Your task to perform on an android device: check storage Image 0: 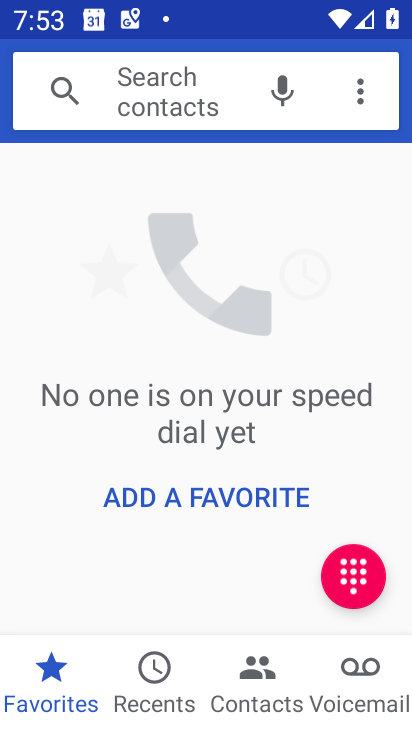
Step 0: press home button
Your task to perform on an android device: check storage Image 1: 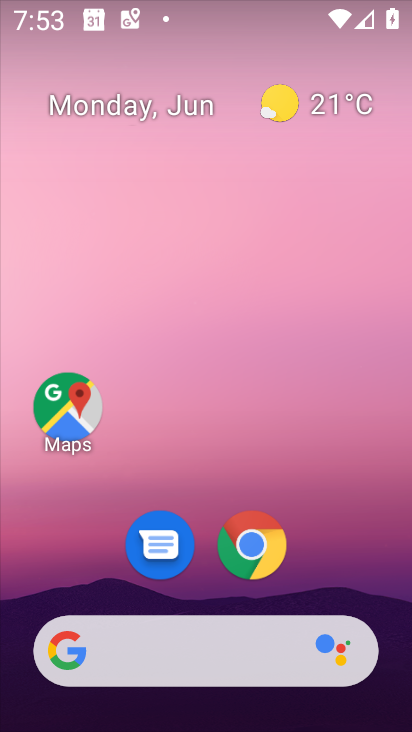
Step 1: drag from (325, 539) to (309, 98)
Your task to perform on an android device: check storage Image 2: 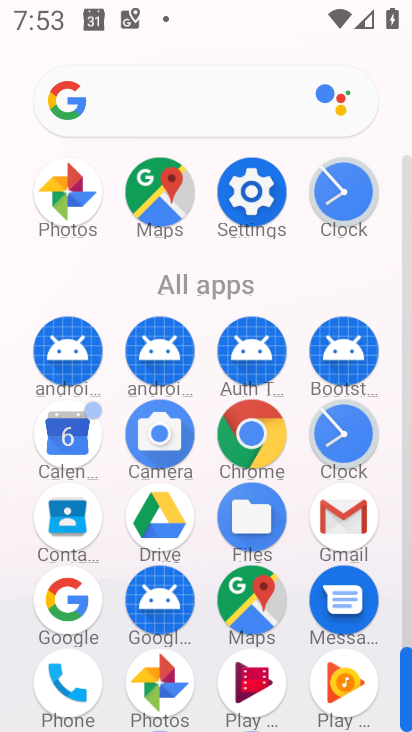
Step 2: click (257, 209)
Your task to perform on an android device: check storage Image 3: 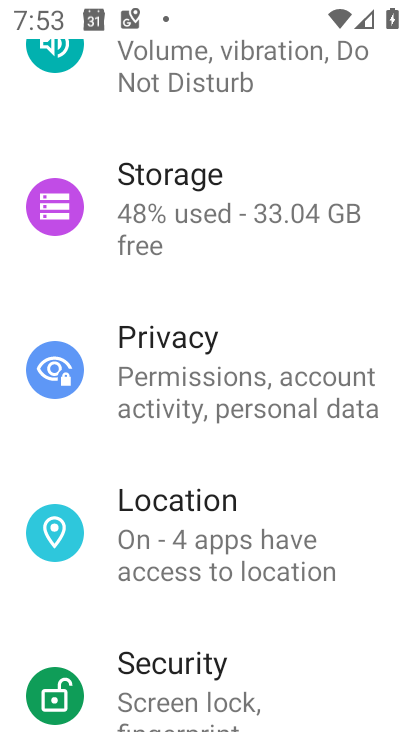
Step 3: drag from (166, 505) to (160, 590)
Your task to perform on an android device: check storage Image 4: 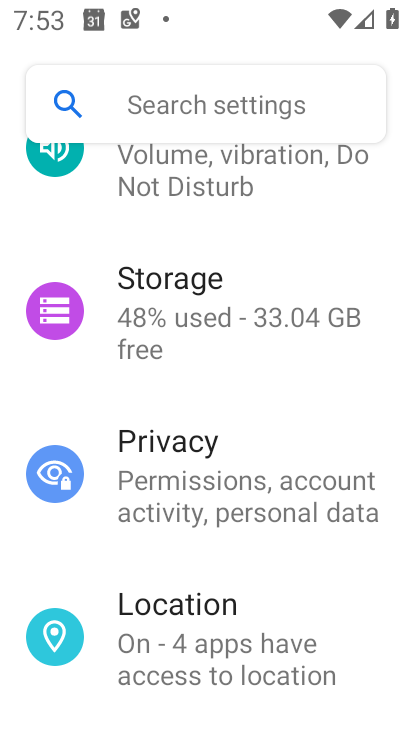
Step 4: click (163, 354)
Your task to perform on an android device: check storage Image 5: 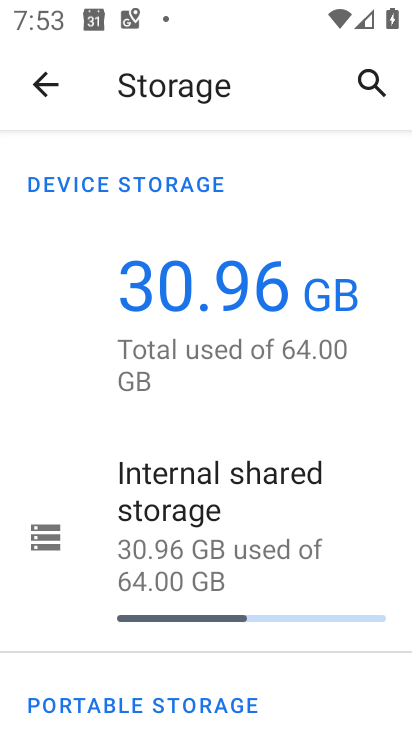
Step 5: task complete